Your task to perform on an android device: change the clock display to show seconds Image 0: 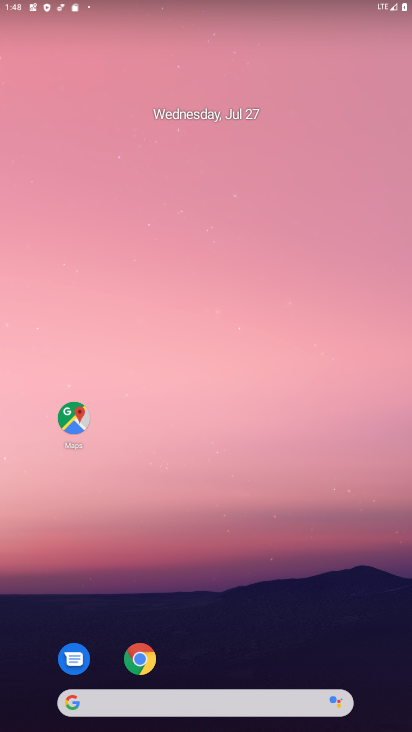
Step 0: drag from (206, 724) to (211, 7)
Your task to perform on an android device: change the clock display to show seconds Image 1: 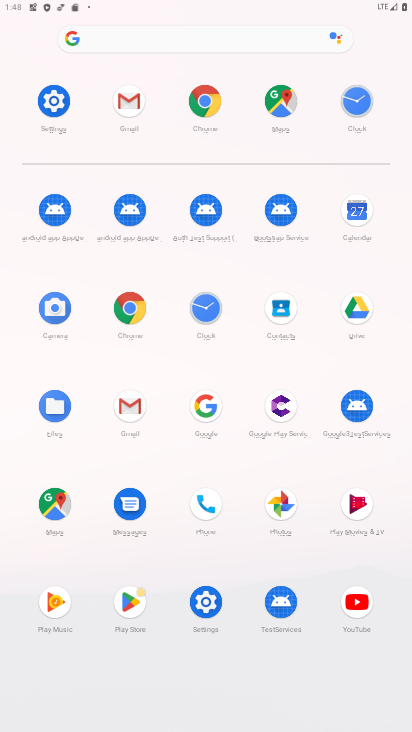
Step 1: click (200, 309)
Your task to perform on an android device: change the clock display to show seconds Image 2: 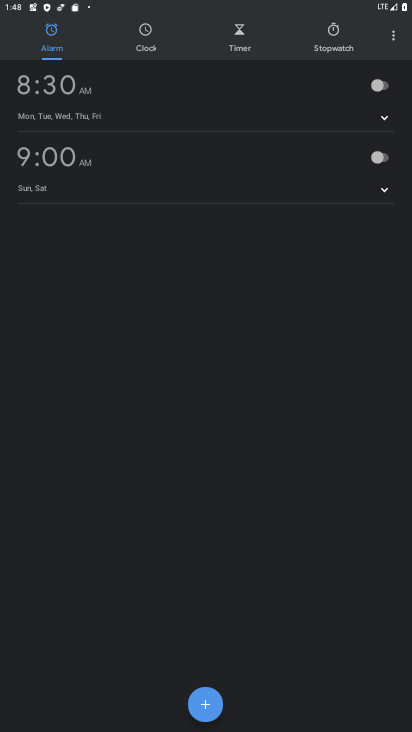
Step 2: click (396, 42)
Your task to perform on an android device: change the clock display to show seconds Image 3: 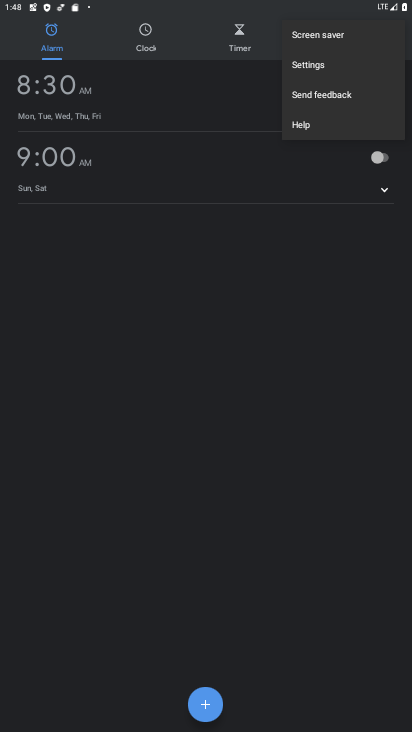
Step 3: click (309, 63)
Your task to perform on an android device: change the clock display to show seconds Image 4: 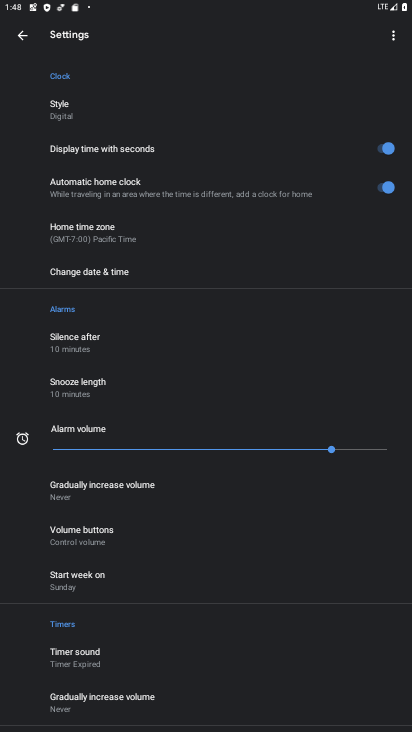
Step 4: task complete